Your task to perform on an android device: Open Android settings Image 0: 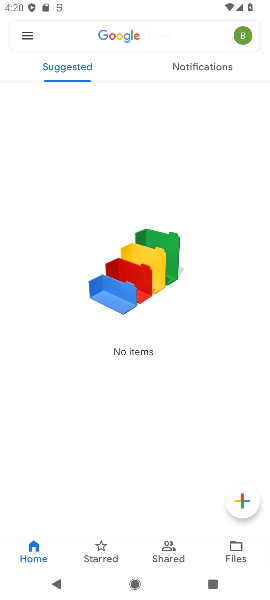
Step 0: press home button
Your task to perform on an android device: Open Android settings Image 1: 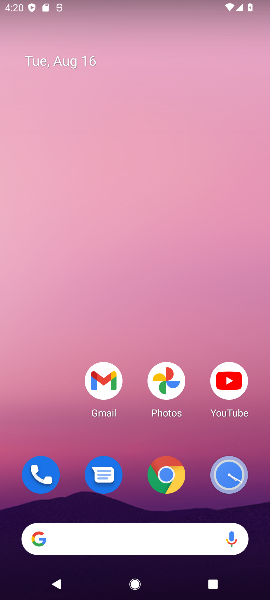
Step 1: drag from (240, 504) to (90, 1)
Your task to perform on an android device: Open Android settings Image 2: 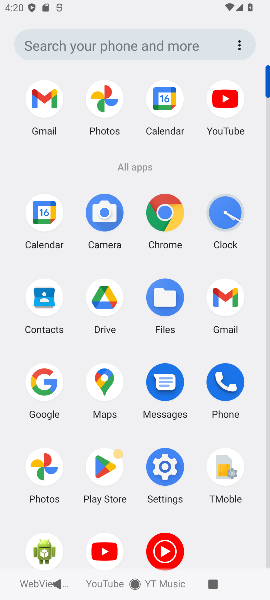
Step 2: click (156, 474)
Your task to perform on an android device: Open Android settings Image 3: 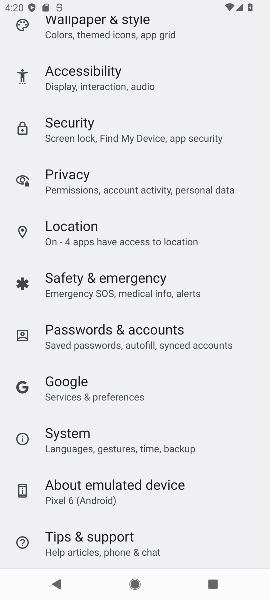
Step 3: drag from (152, 471) to (101, 34)
Your task to perform on an android device: Open Android settings Image 4: 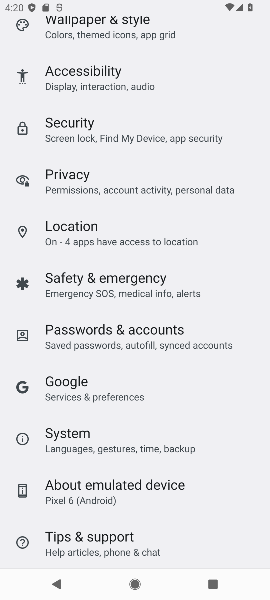
Step 4: click (103, 530)
Your task to perform on an android device: Open Android settings Image 5: 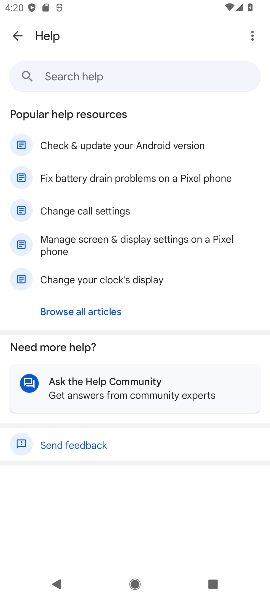
Step 5: task complete